Your task to perform on an android device: Open display settings Image 0: 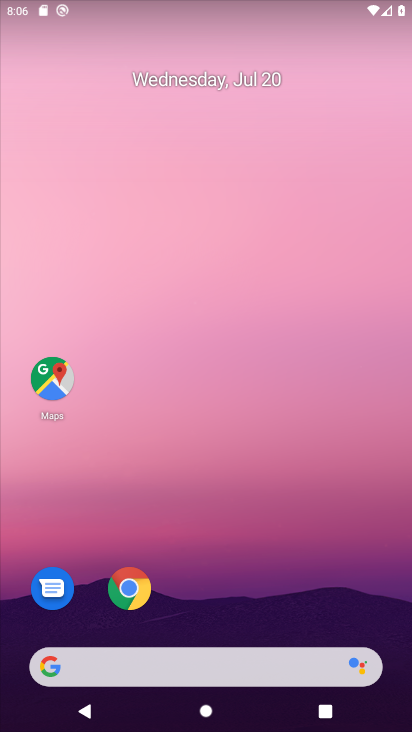
Step 0: drag from (229, 626) to (275, 8)
Your task to perform on an android device: Open display settings Image 1: 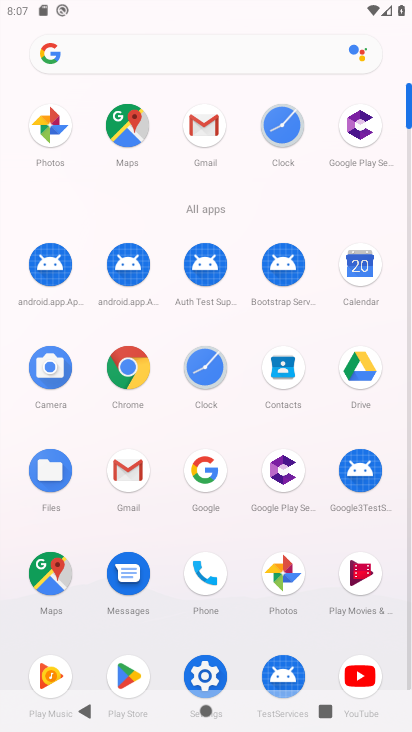
Step 1: click (203, 663)
Your task to perform on an android device: Open display settings Image 2: 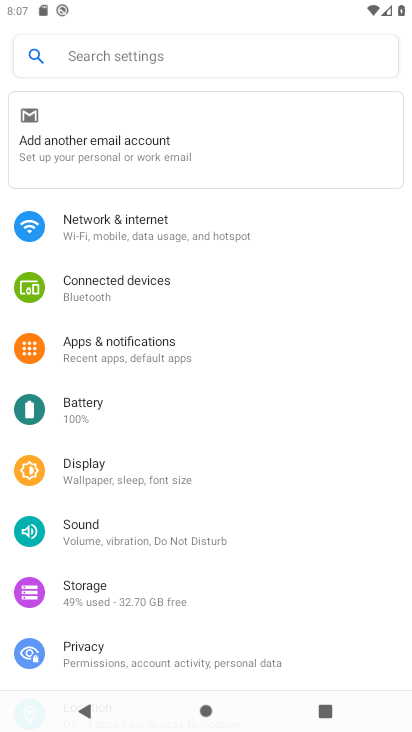
Step 2: click (112, 472)
Your task to perform on an android device: Open display settings Image 3: 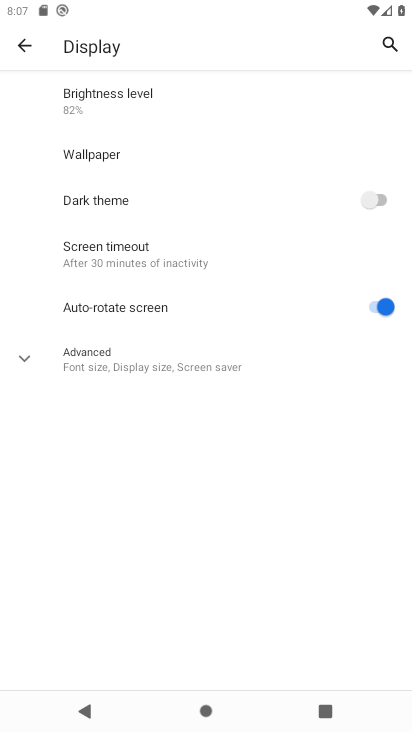
Step 3: click (29, 356)
Your task to perform on an android device: Open display settings Image 4: 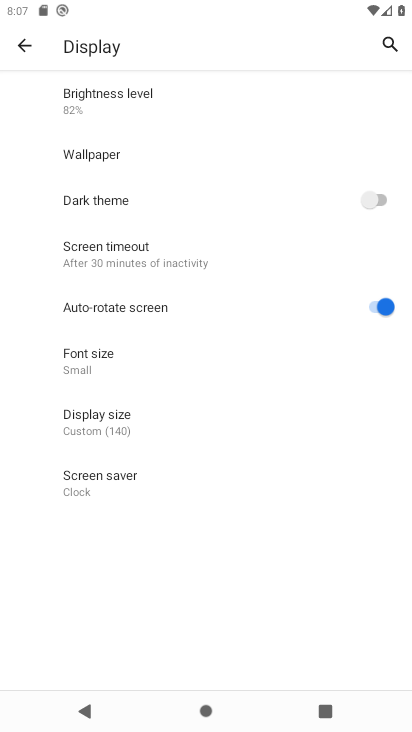
Step 4: task complete